Your task to perform on an android device: move an email to a new category in the gmail app Image 0: 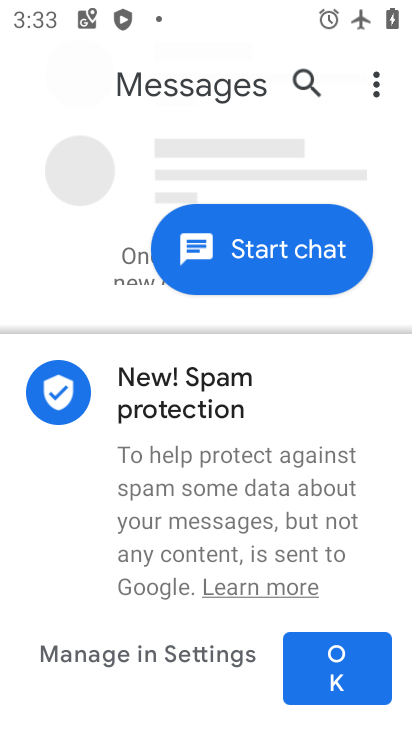
Step 0: press home button
Your task to perform on an android device: move an email to a new category in the gmail app Image 1: 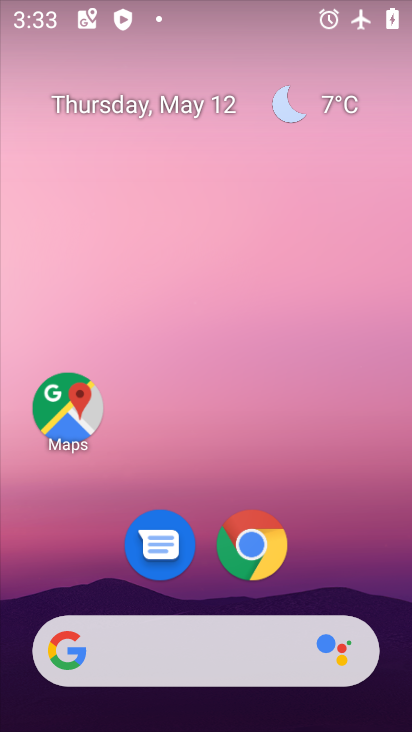
Step 1: drag from (391, 635) to (280, 170)
Your task to perform on an android device: move an email to a new category in the gmail app Image 2: 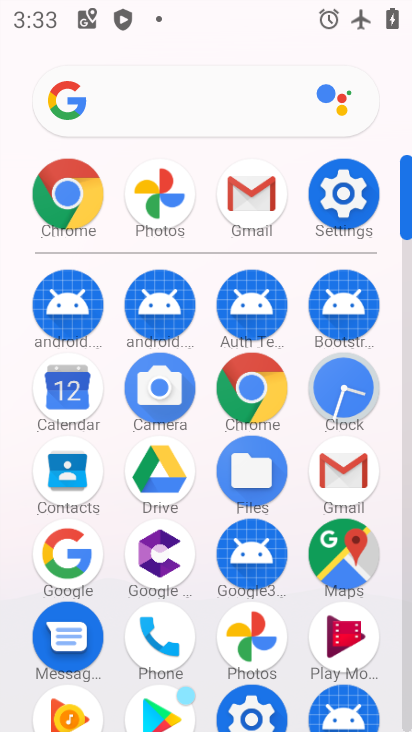
Step 2: click (342, 467)
Your task to perform on an android device: move an email to a new category in the gmail app Image 3: 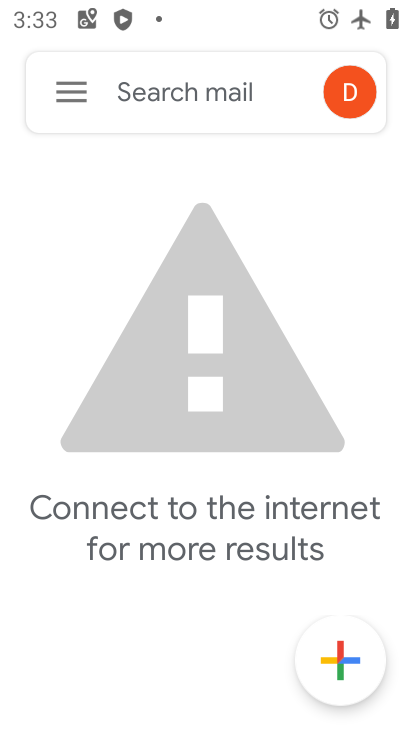
Step 3: click (77, 97)
Your task to perform on an android device: move an email to a new category in the gmail app Image 4: 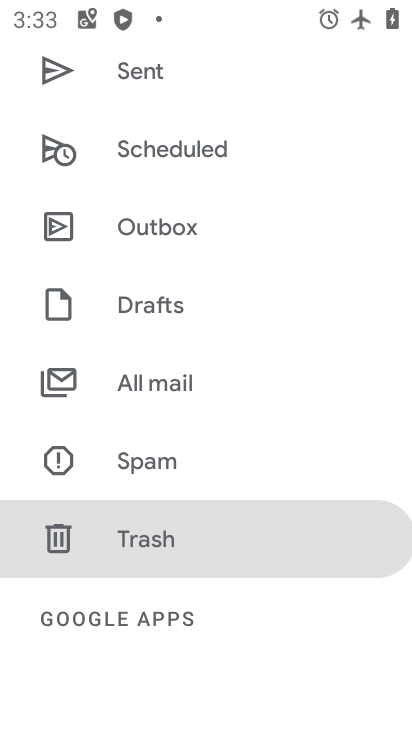
Step 4: click (150, 376)
Your task to perform on an android device: move an email to a new category in the gmail app Image 5: 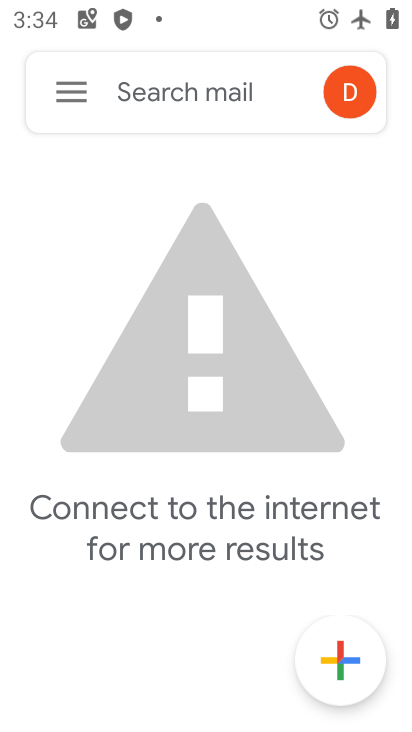
Step 5: task complete